Your task to perform on an android device: check data usage Image 0: 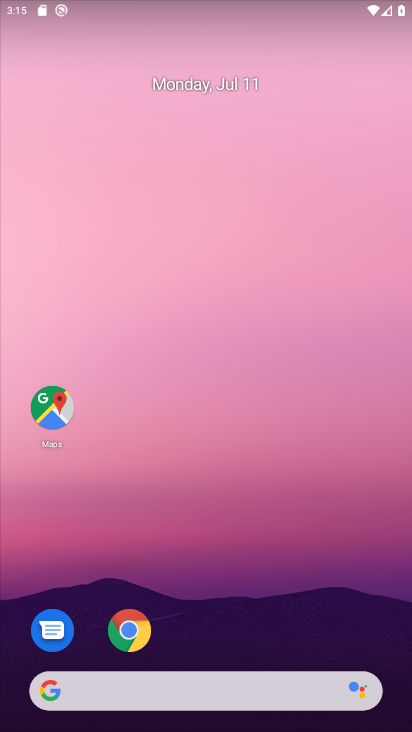
Step 0: drag from (306, 652) to (196, 167)
Your task to perform on an android device: check data usage Image 1: 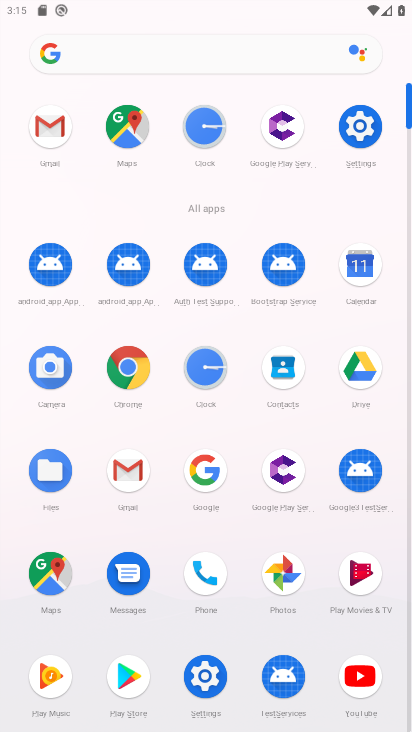
Step 1: click (345, 146)
Your task to perform on an android device: check data usage Image 2: 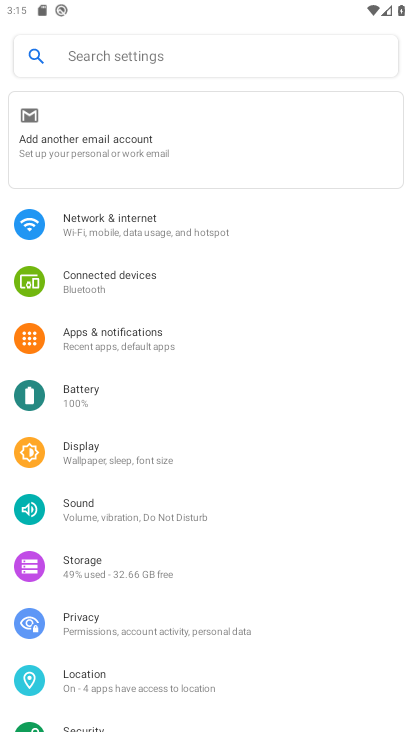
Step 2: click (247, 240)
Your task to perform on an android device: check data usage Image 3: 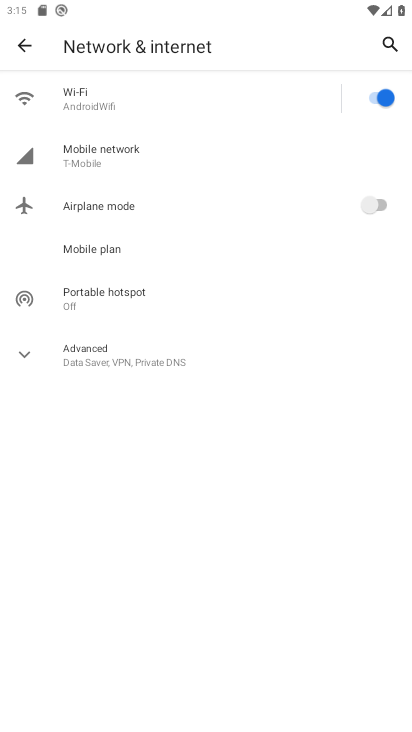
Step 3: click (190, 146)
Your task to perform on an android device: check data usage Image 4: 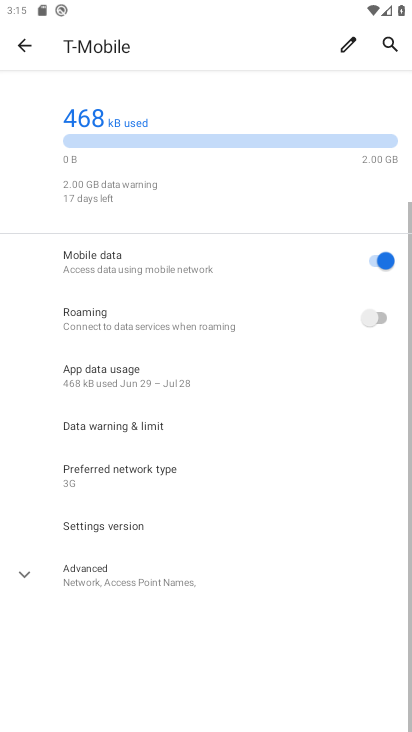
Step 4: task complete